Your task to perform on an android device: Open Chrome and go to the settings page Image 0: 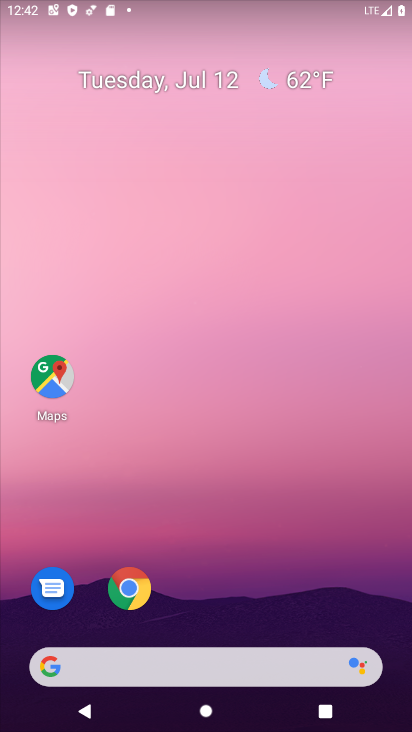
Step 0: click (113, 585)
Your task to perform on an android device: Open Chrome and go to the settings page Image 1: 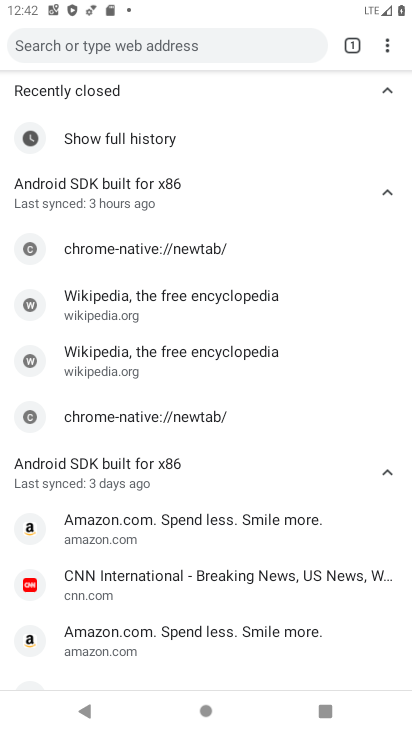
Step 1: click (385, 48)
Your task to perform on an android device: Open Chrome and go to the settings page Image 2: 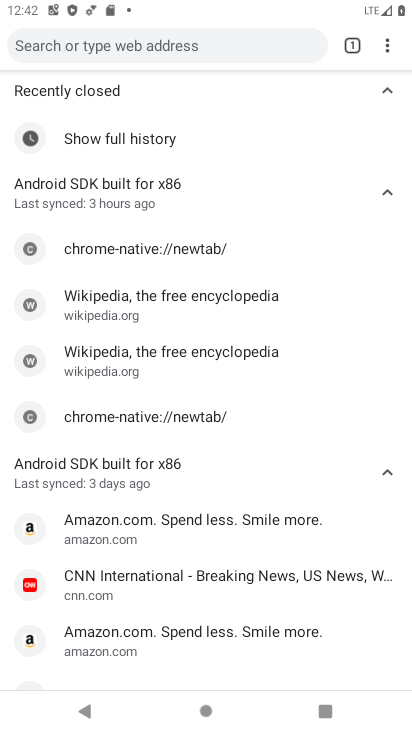
Step 2: click (385, 48)
Your task to perform on an android device: Open Chrome and go to the settings page Image 3: 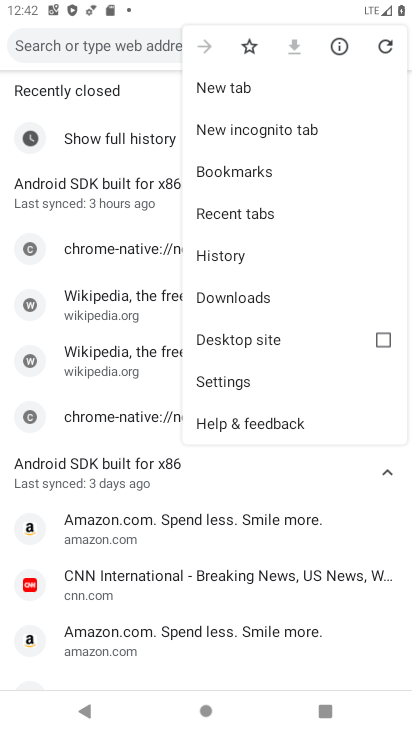
Step 3: click (230, 383)
Your task to perform on an android device: Open Chrome and go to the settings page Image 4: 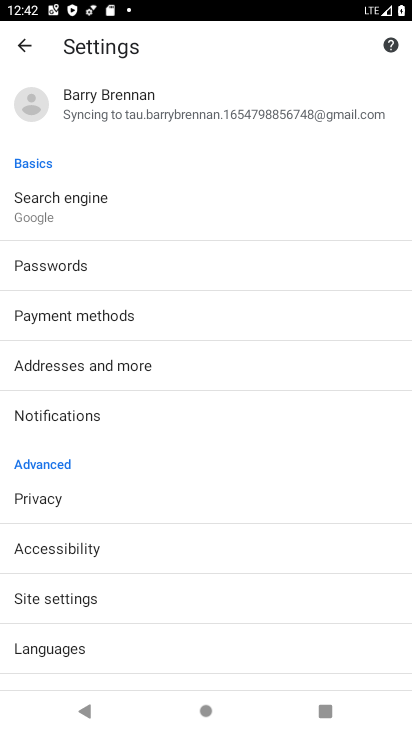
Step 4: task complete